Your task to perform on an android device: Go to Google Image 0: 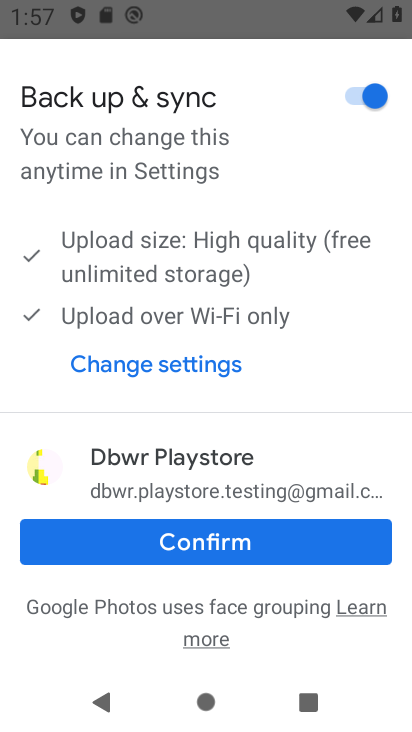
Step 0: press home button
Your task to perform on an android device: Go to Google Image 1: 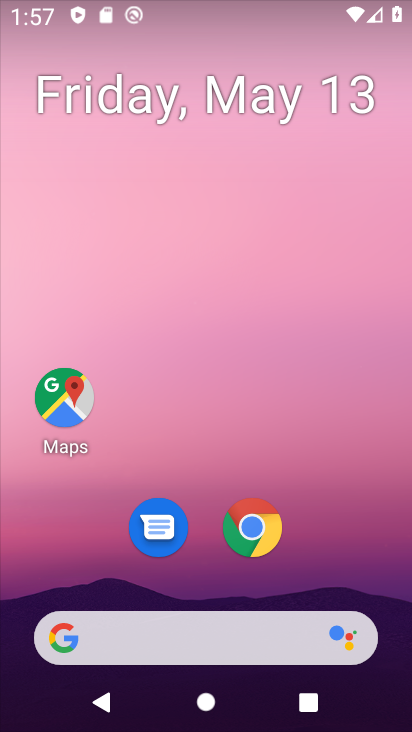
Step 1: click (197, 638)
Your task to perform on an android device: Go to Google Image 2: 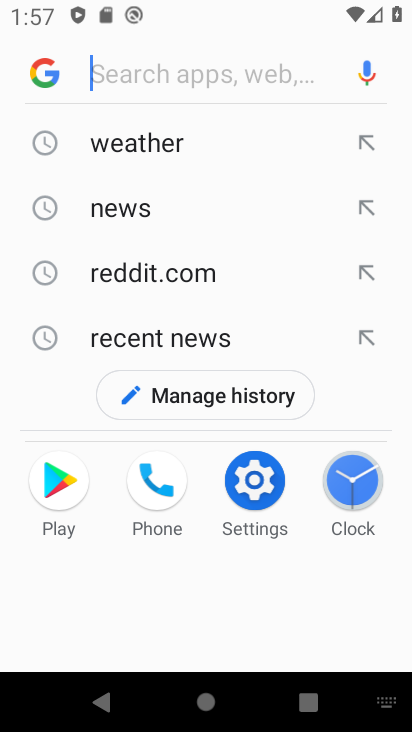
Step 2: task complete